Your task to perform on an android device: remove spam from my inbox in the gmail app Image 0: 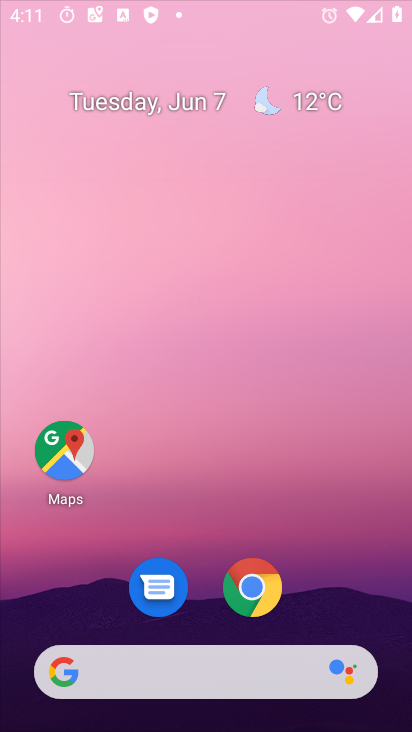
Step 0: drag from (290, 225) to (100, 2)
Your task to perform on an android device: remove spam from my inbox in the gmail app Image 1: 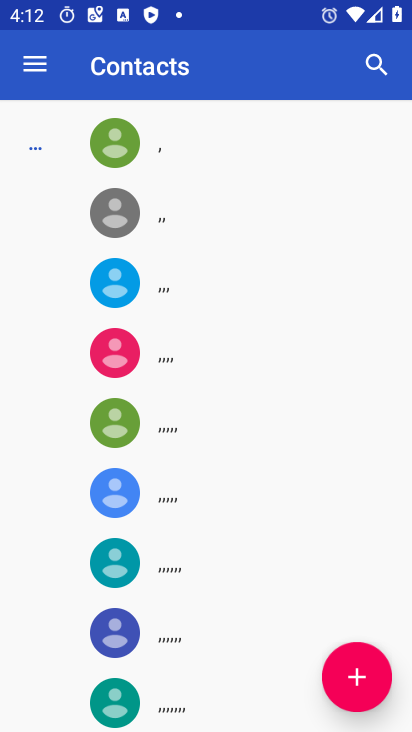
Step 1: press home button
Your task to perform on an android device: remove spam from my inbox in the gmail app Image 2: 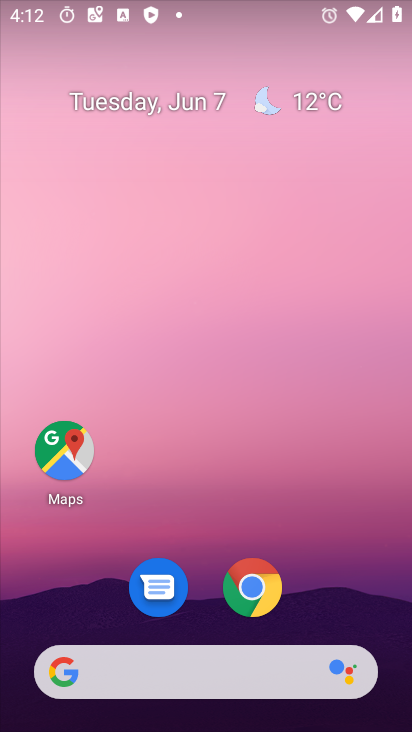
Step 2: drag from (268, 582) to (257, 155)
Your task to perform on an android device: remove spam from my inbox in the gmail app Image 3: 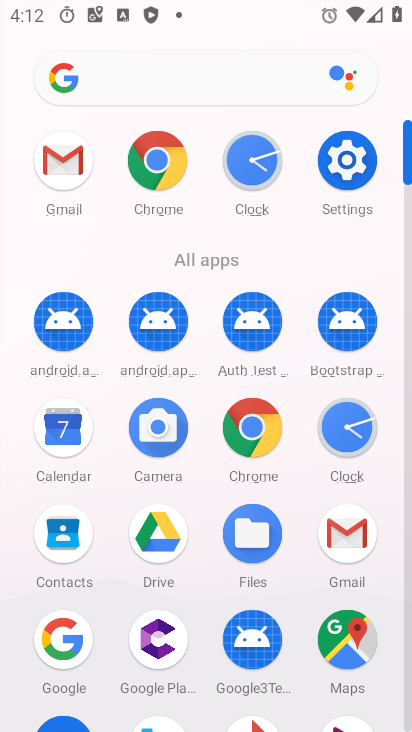
Step 3: click (363, 529)
Your task to perform on an android device: remove spam from my inbox in the gmail app Image 4: 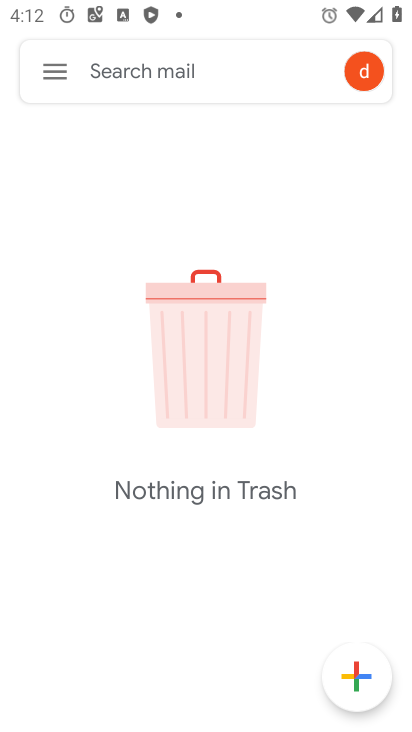
Step 4: click (64, 70)
Your task to perform on an android device: remove spam from my inbox in the gmail app Image 5: 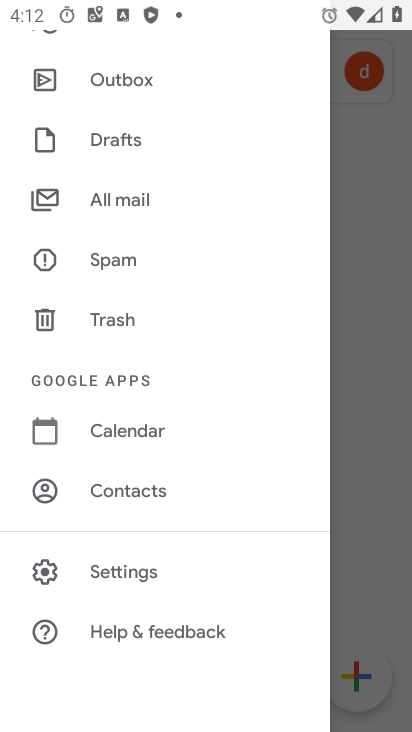
Step 5: click (146, 254)
Your task to perform on an android device: remove spam from my inbox in the gmail app Image 6: 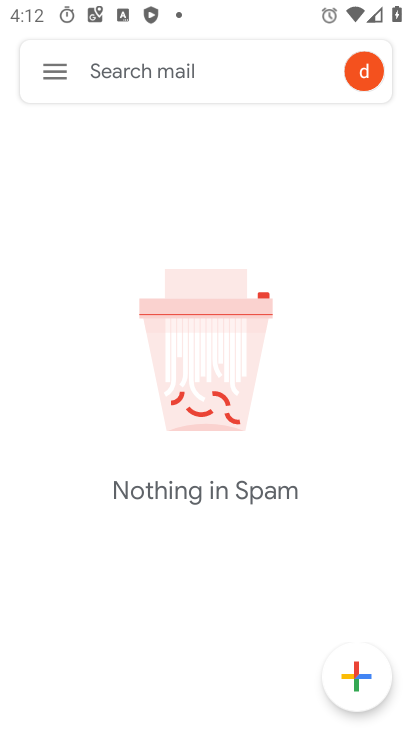
Step 6: task complete